Your task to perform on an android device: check google app version Image 0: 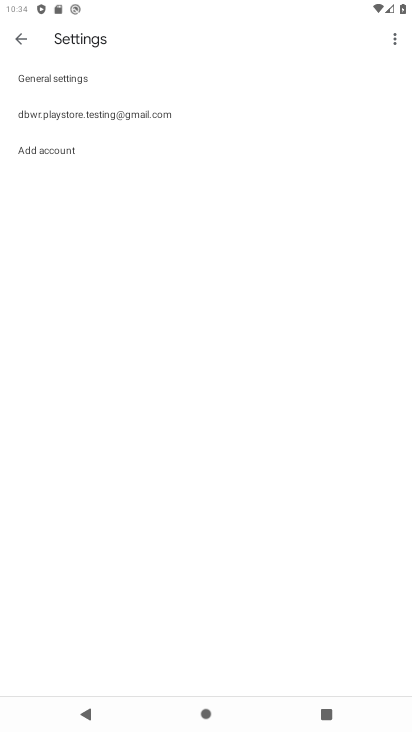
Step 0: press back button
Your task to perform on an android device: check google app version Image 1: 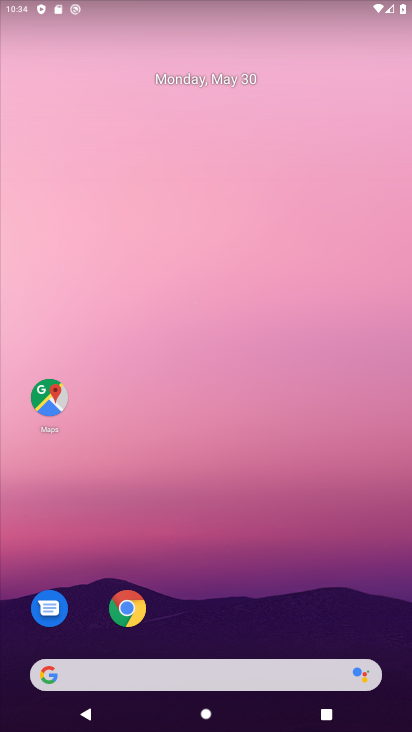
Step 1: drag from (275, 577) to (235, 8)
Your task to perform on an android device: check google app version Image 2: 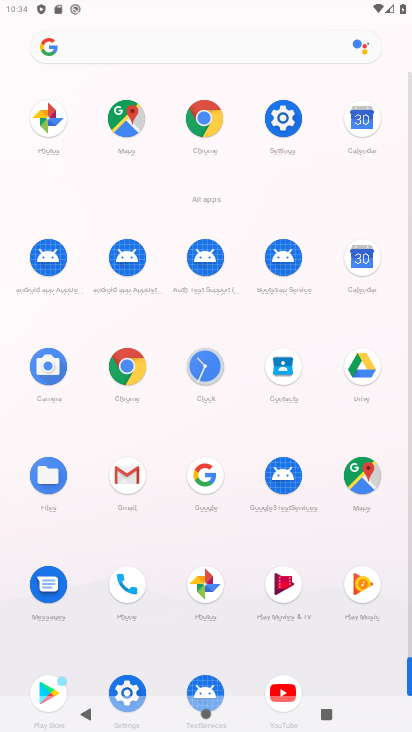
Step 2: click (203, 474)
Your task to perform on an android device: check google app version Image 3: 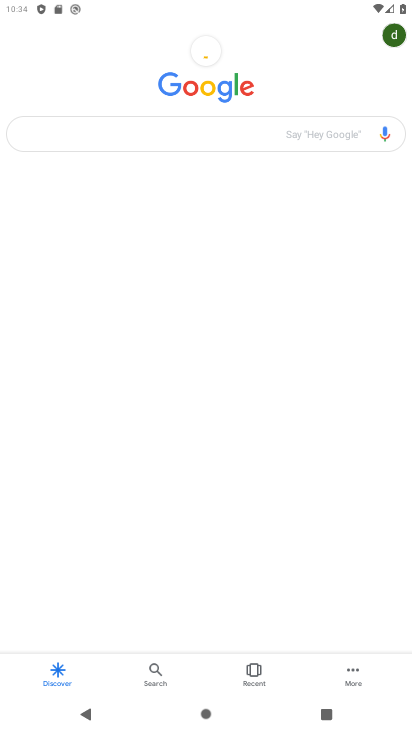
Step 3: click (351, 669)
Your task to perform on an android device: check google app version Image 4: 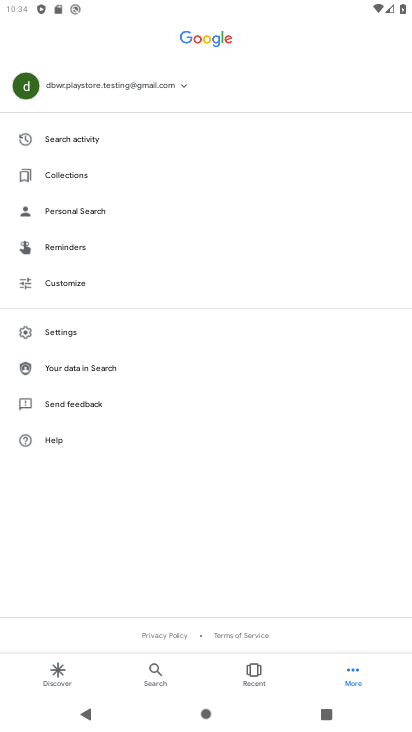
Step 4: click (67, 330)
Your task to perform on an android device: check google app version Image 5: 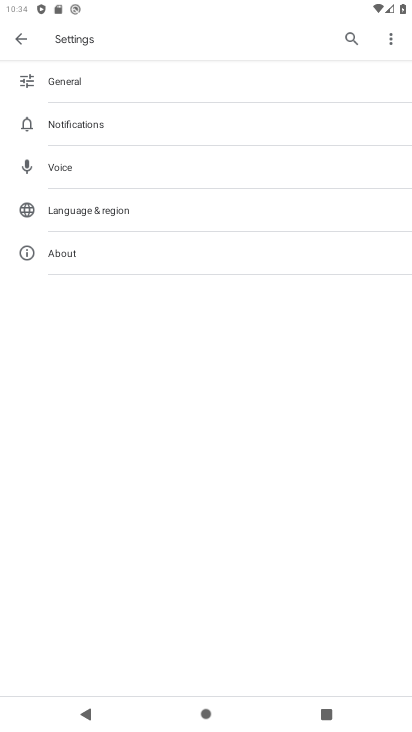
Step 5: click (85, 251)
Your task to perform on an android device: check google app version Image 6: 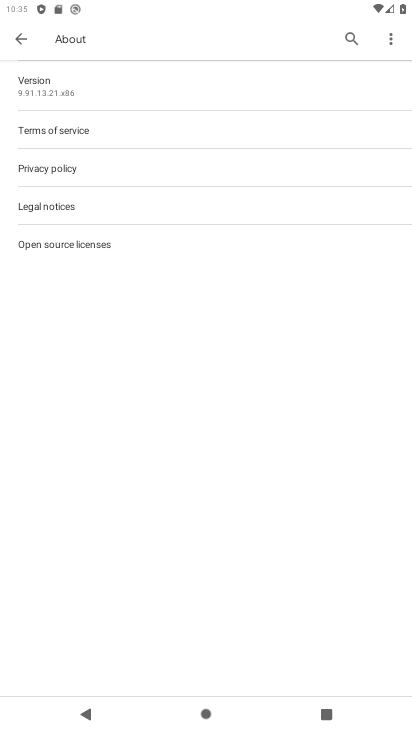
Step 6: task complete